Your task to perform on an android device: toggle pop-ups in chrome Image 0: 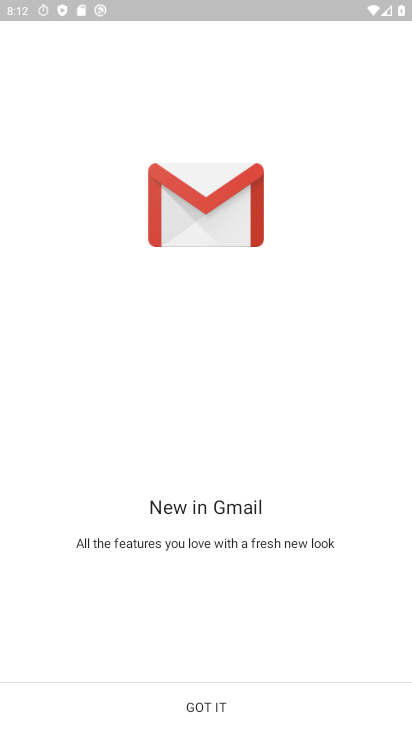
Step 0: press home button
Your task to perform on an android device: toggle pop-ups in chrome Image 1: 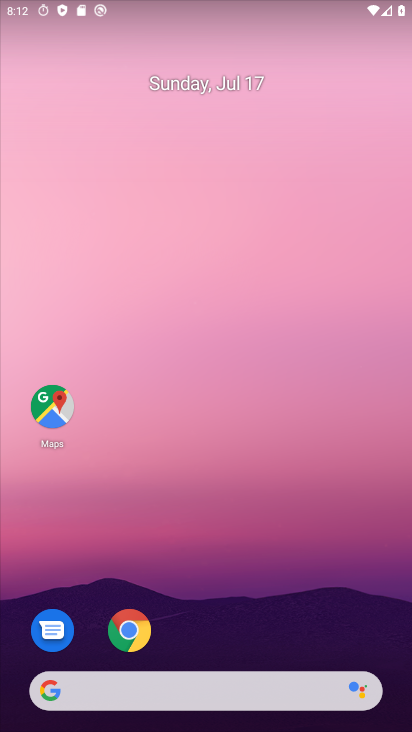
Step 1: click (112, 623)
Your task to perform on an android device: toggle pop-ups in chrome Image 2: 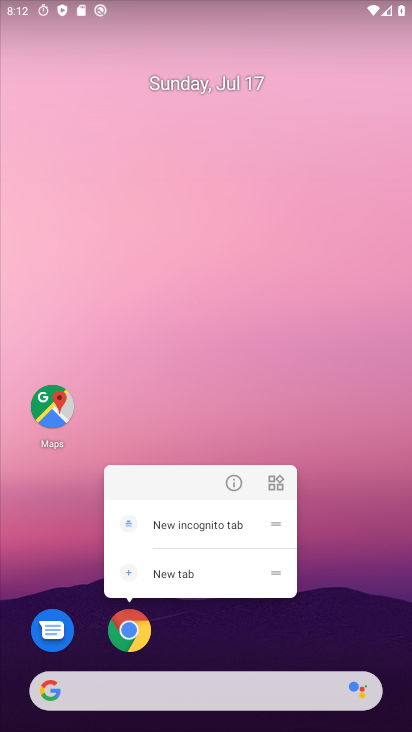
Step 2: click (125, 620)
Your task to perform on an android device: toggle pop-ups in chrome Image 3: 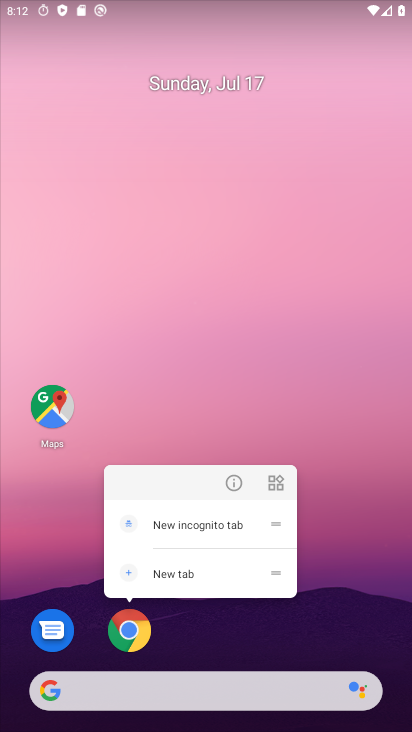
Step 3: click (125, 615)
Your task to perform on an android device: toggle pop-ups in chrome Image 4: 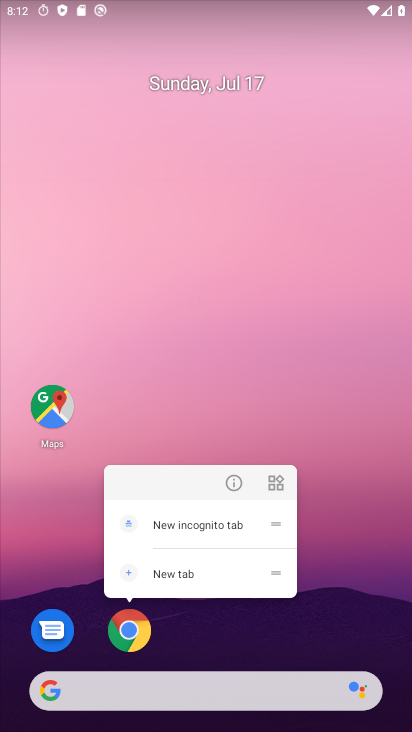
Step 4: task complete